Your task to perform on an android device: Open the stopwatch Image 0: 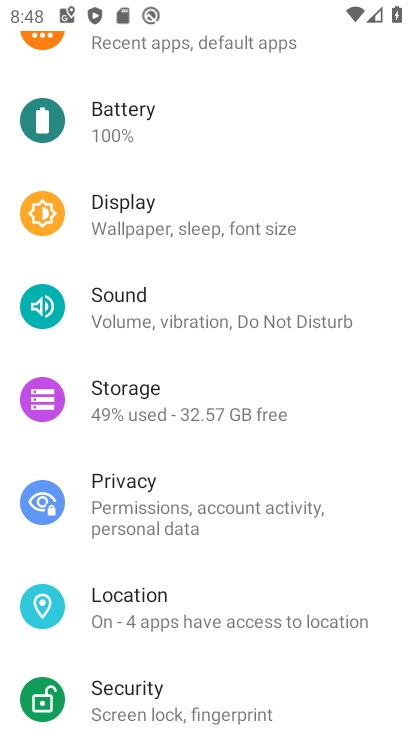
Step 0: press home button
Your task to perform on an android device: Open the stopwatch Image 1: 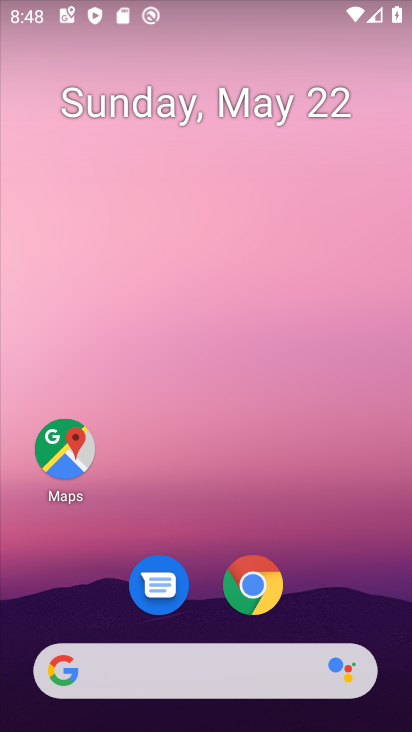
Step 1: drag from (213, 507) to (228, 50)
Your task to perform on an android device: Open the stopwatch Image 2: 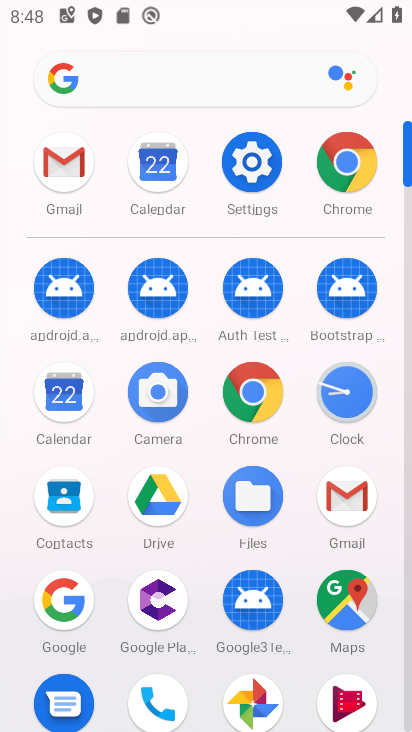
Step 2: click (349, 383)
Your task to perform on an android device: Open the stopwatch Image 3: 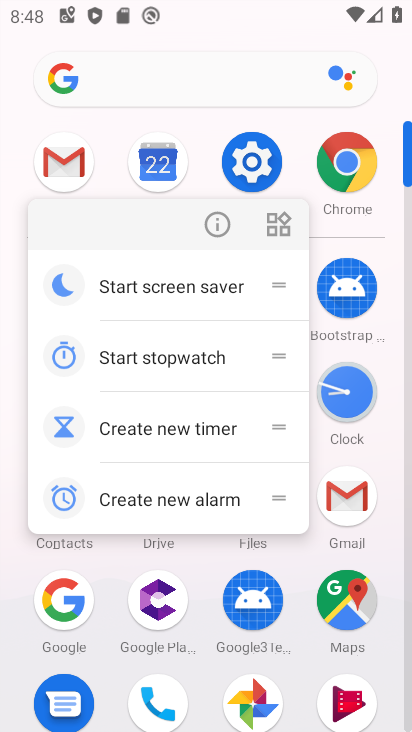
Step 3: click (352, 391)
Your task to perform on an android device: Open the stopwatch Image 4: 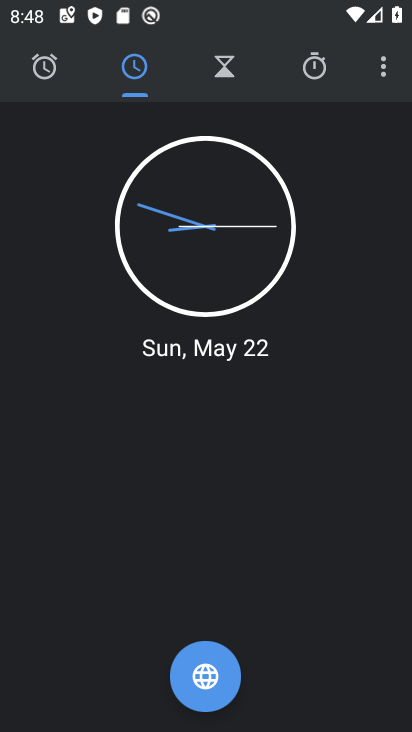
Step 4: click (317, 65)
Your task to perform on an android device: Open the stopwatch Image 5: 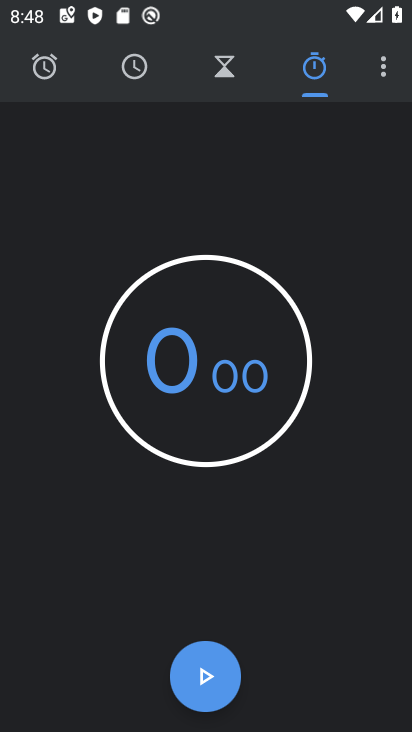
Step 5: task complete